Your task to perform on an android device: Open settings on Google Maps Image 0: 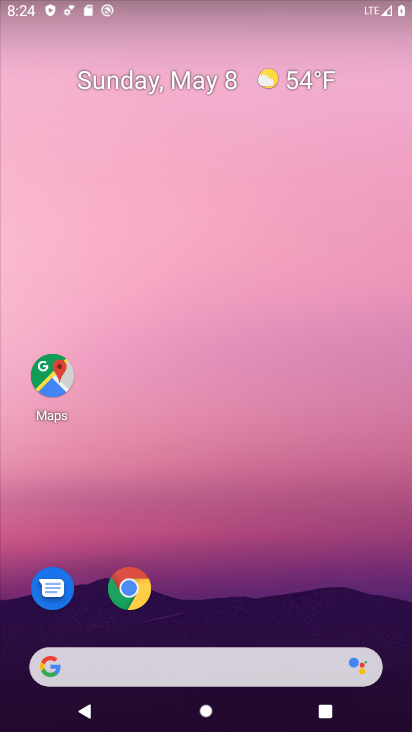
Step 0: click (39, 385)
Your task to perform on an android device: Open settings on Google Maps Image 1: 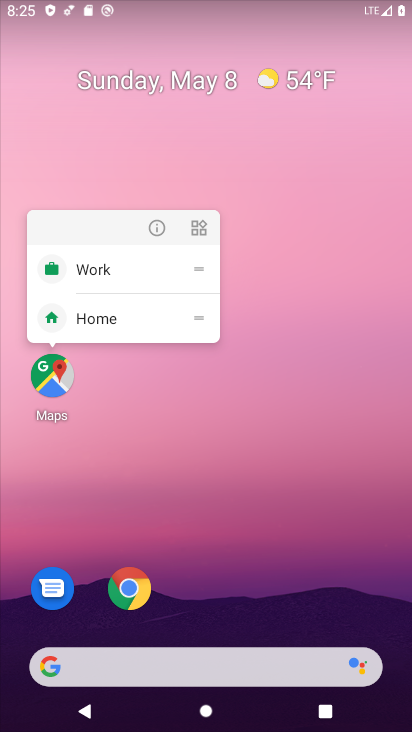
Step 1: click (158, 233)
Your task to perform on an android device: Open settings on Google Maps Image 2: 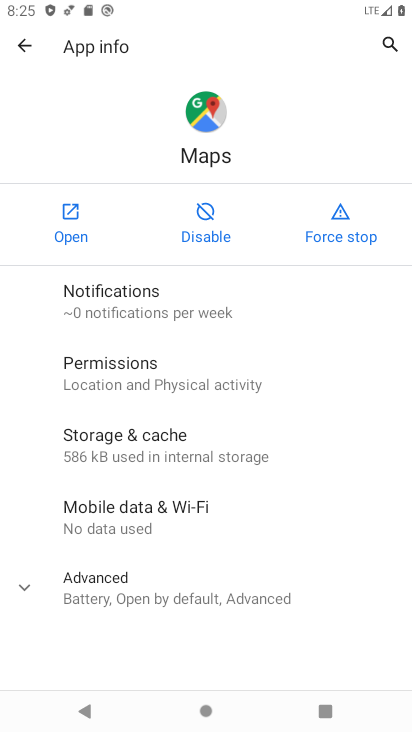
Step 2: click (76, 221)
Your task to perform on an android device: Open settings on Google Maps Image 3: 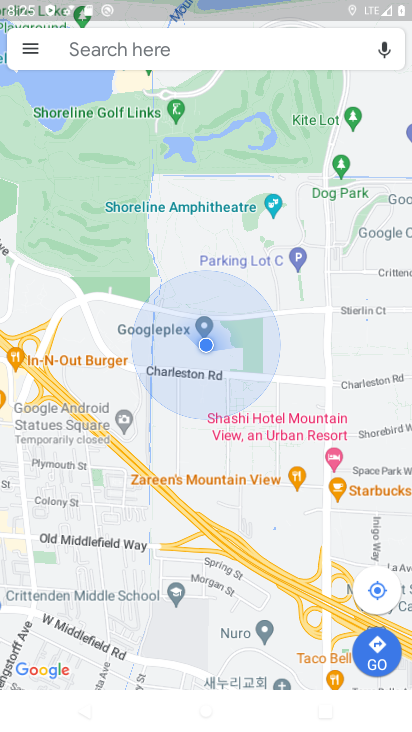
Step 3: task complete